Your task to perform on an android device: Search for Italian restaurants on Maps Image 0: 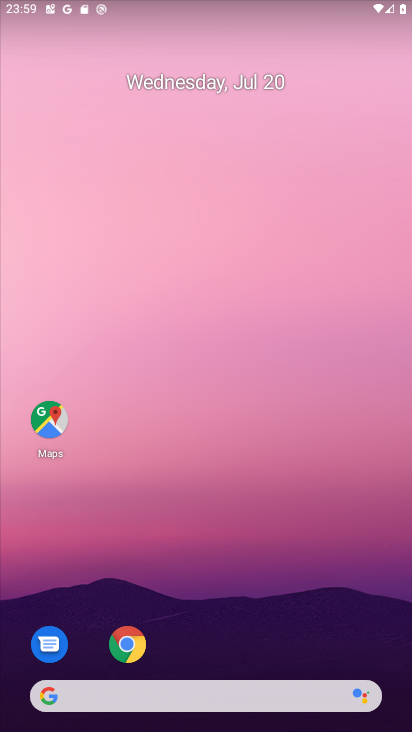
Step 0: click (46, 420)
Your task to perform on an android device: Search for Italian restaurants on Maps Image 1: 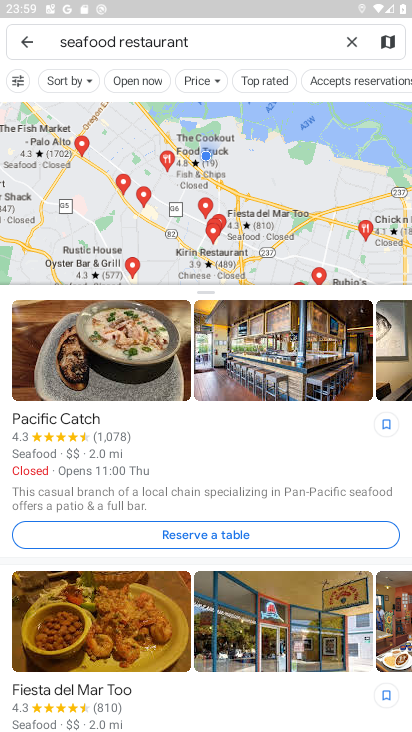
Step 1: click (350, 48)
Your task to perform on an android device: Search for Italian restaurants on Maps Image 2: 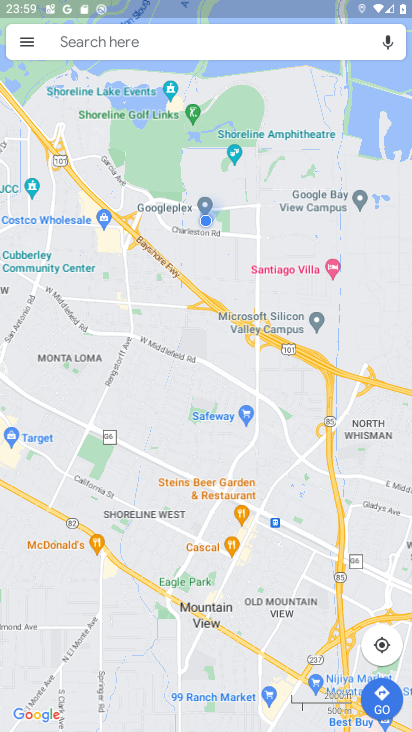
Step 2: click (193, 49)
Your task to perform on an android device: Search for Italian restaurants on Maps Image 3: 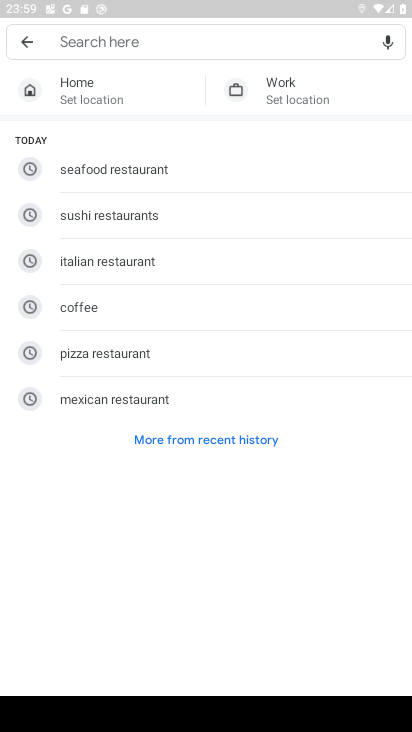
Step 3: click (146, 254)
Your task to perform on an android device: Search for Italian restaurants on Maps Image 4: 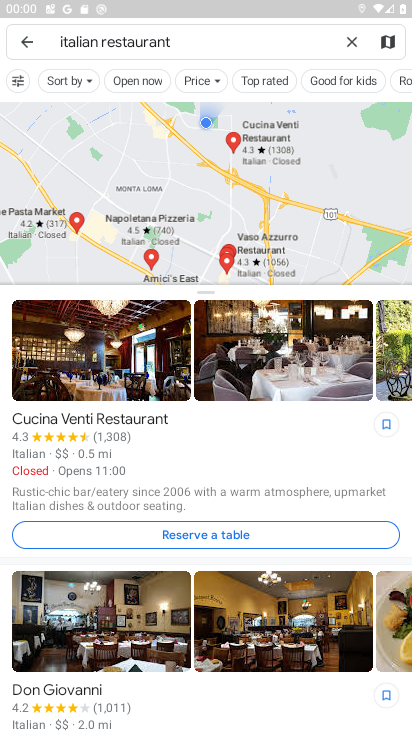
Step 4: task complete